Your task to perform on an android device: check data usage Image 0: 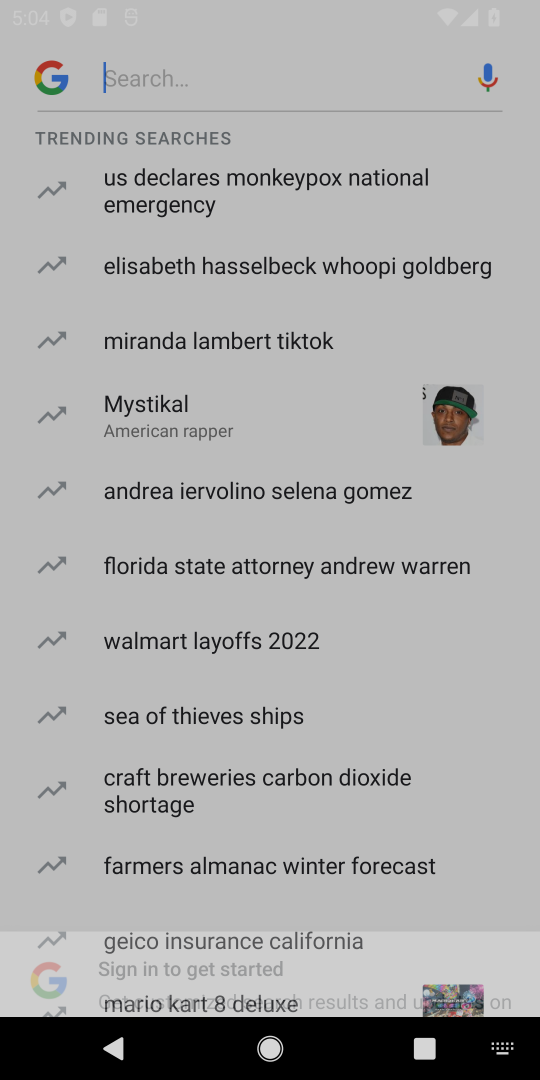
Step 0: press home button
Your task to perform on an android device: check data usage Image 1: 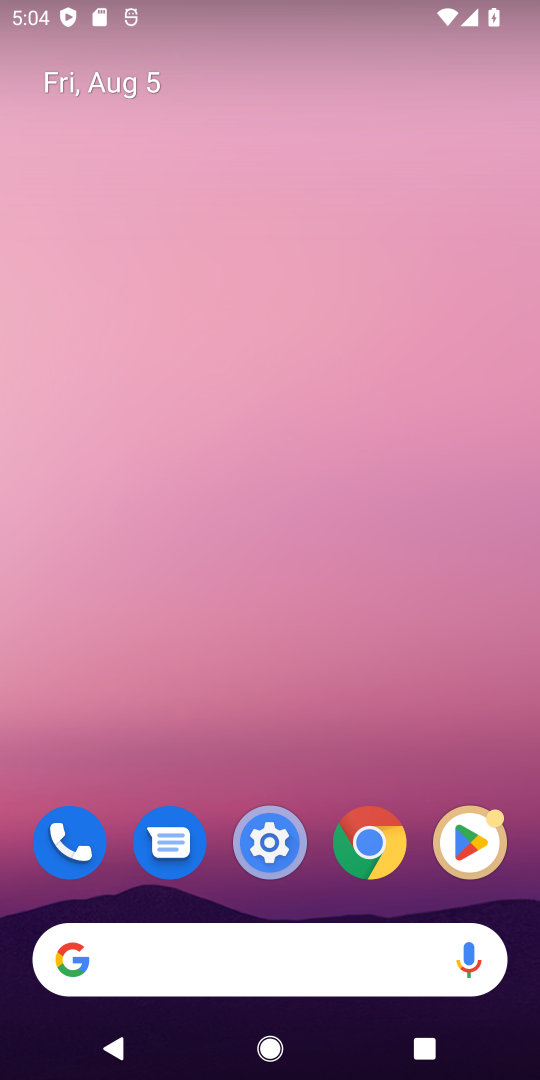
Step 1: drag from (337, 612) to (383, 23)
Your task to perform on an android device: check data usage Image 2: 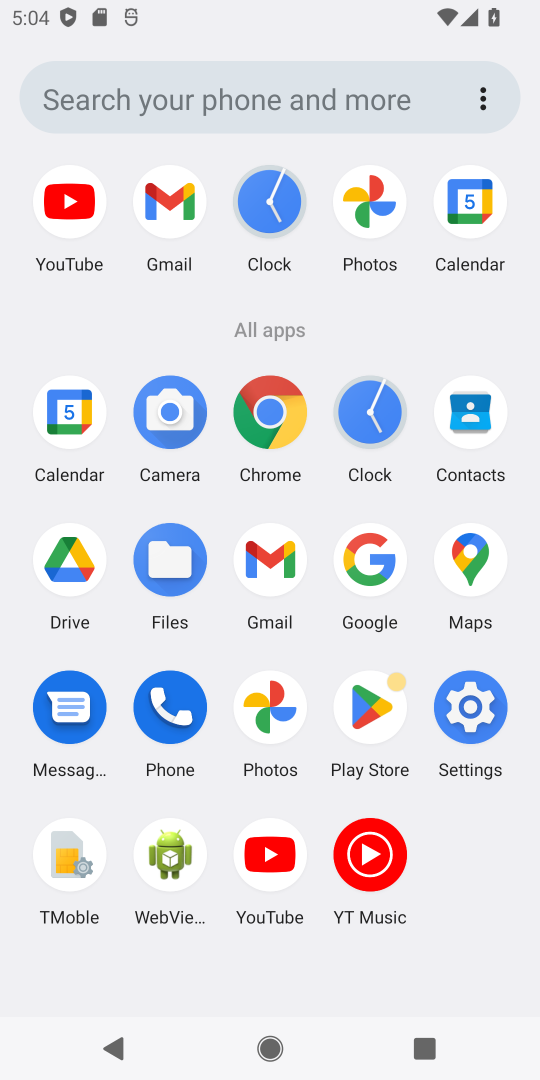
Step 2: click (468, 719)
Your task to perform on an android device: check data usage Image 3: 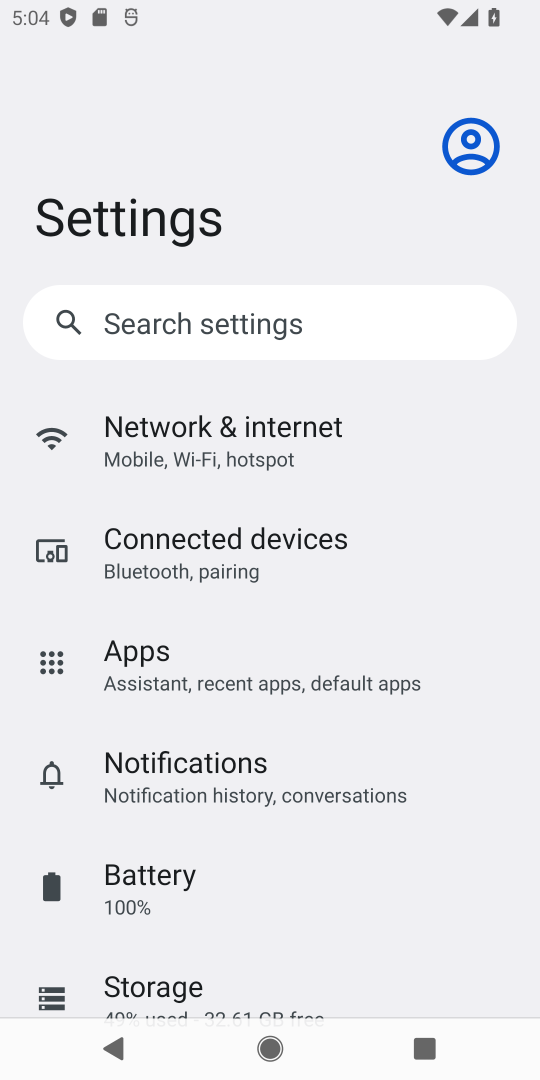
Step 3: click (182, 445)
Your task to perform on an android device: check data usage Image 4: 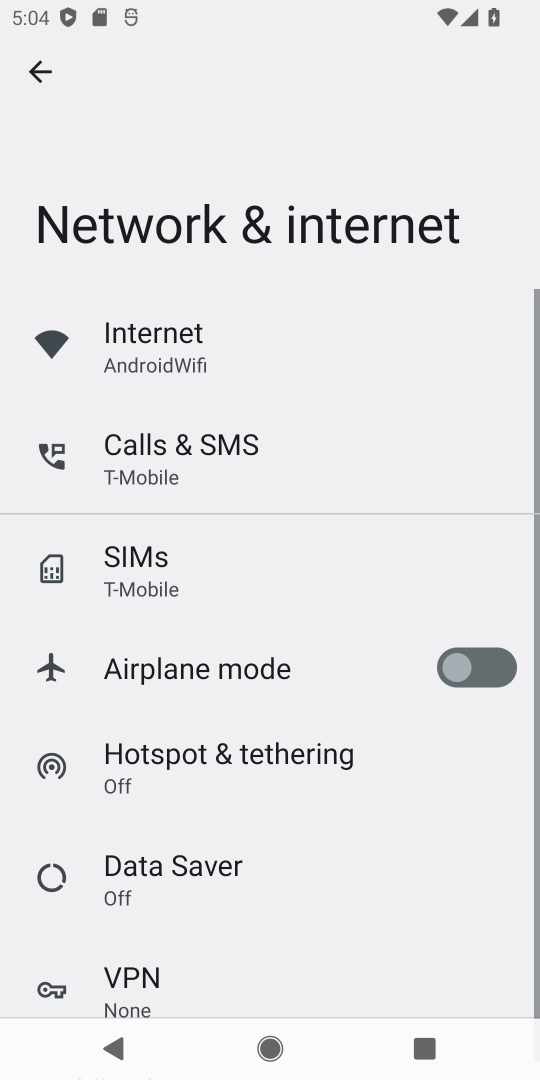
Step 4: click (217, 317)
Your task to perform on an android device: check data usage Image 5: 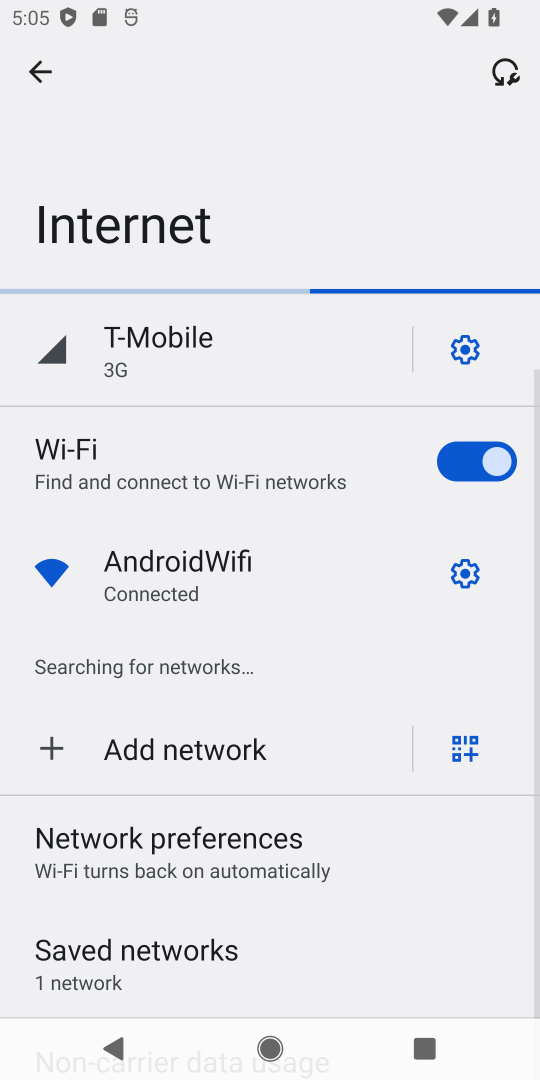
Step 5: drag from (392, 848) to (344, 228)
Your task to perform on an android device: check data usage Image 6: 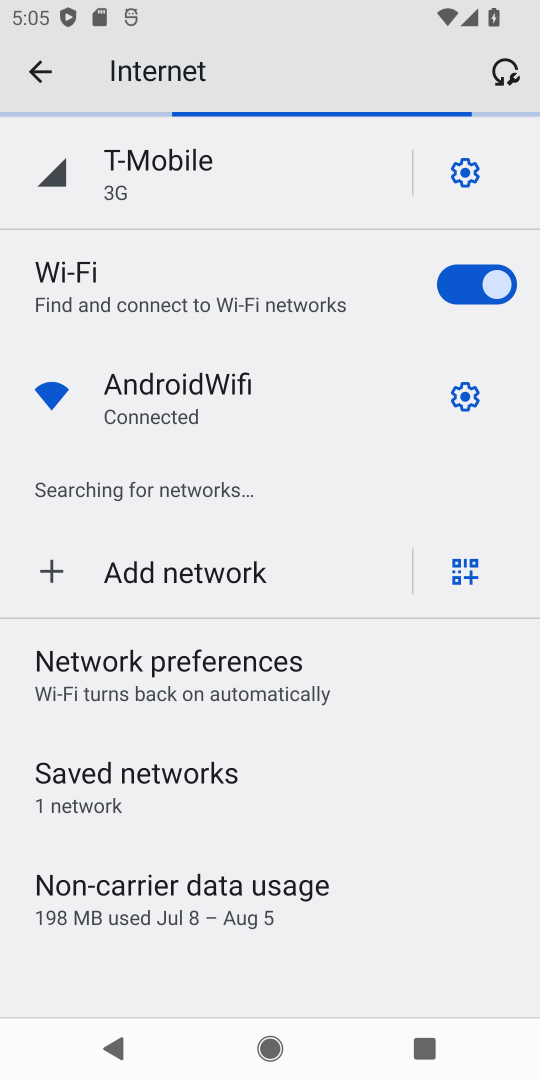
Step 6: click (226, 885)
Your task to perform on an android device: check data usage Image 7: 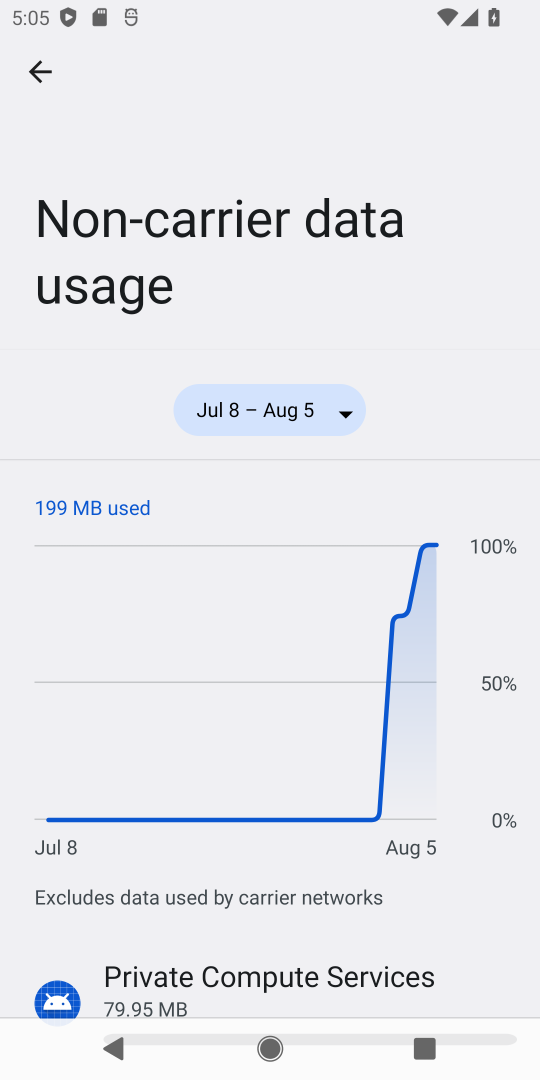
Step 7: task complete